Your task to perform on an android device: change the clock display to digital Image 0: 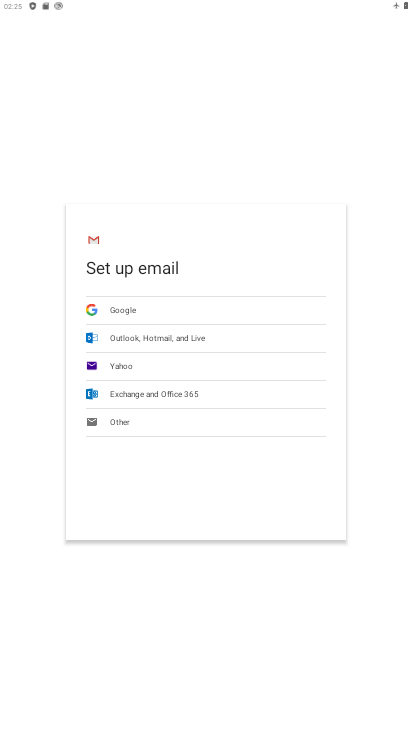
Step 0: press home button
Your task to perform on an android device: change the clock display to digital Image 1: 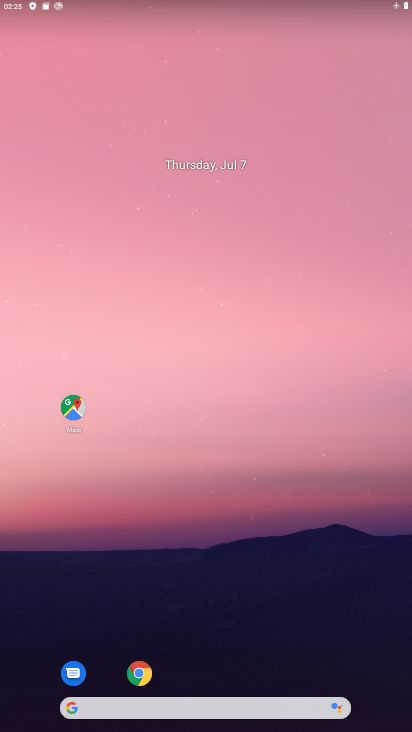
Step 1: drag from (222, 640) to (214, 200)
Your task to perform on an android device: change the clock display to digital Image 2: 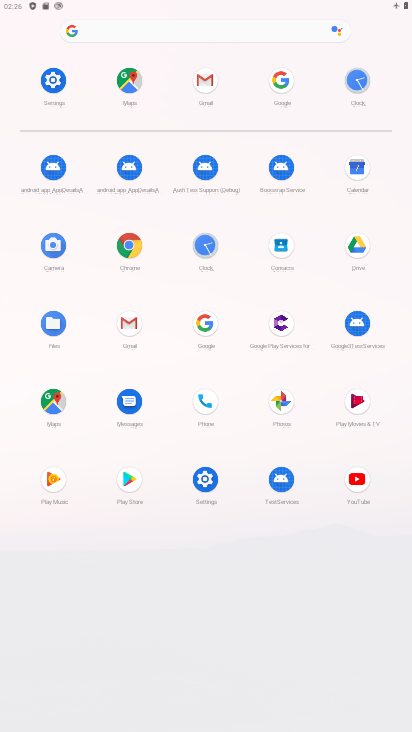
Step 2: click (355, 94)
Your task to perform on an android device: change the clock display to digital Image 3: 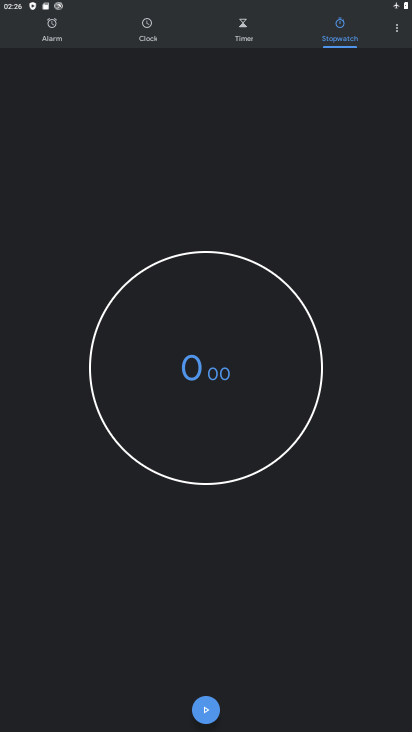
Step 3: click (391, 38)
Your task to perform on an android device: change the clock display to digital Image 4: 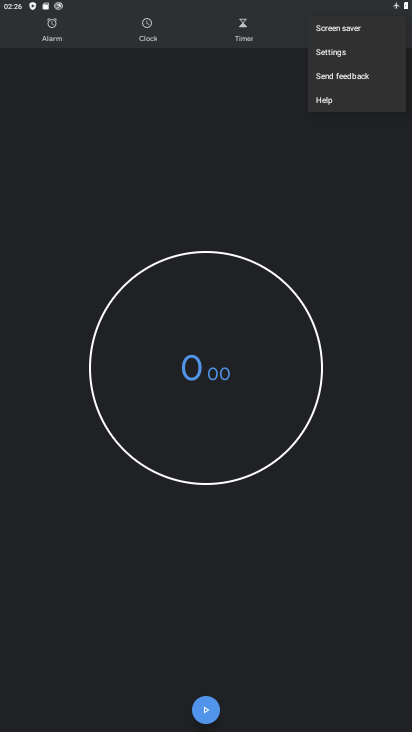
Step 4: click (344, 55)
Your task to perform on an android device: change the clock display to digital Image 5: 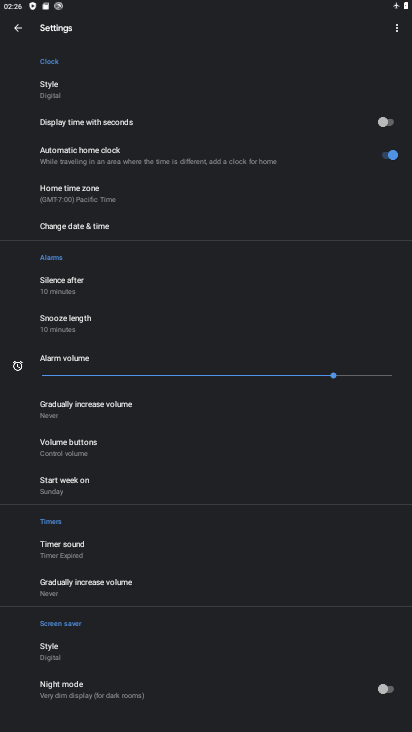
Step 5: click (50, 88)
Your task to perform on an android device: change the clock display to digital Image 6: 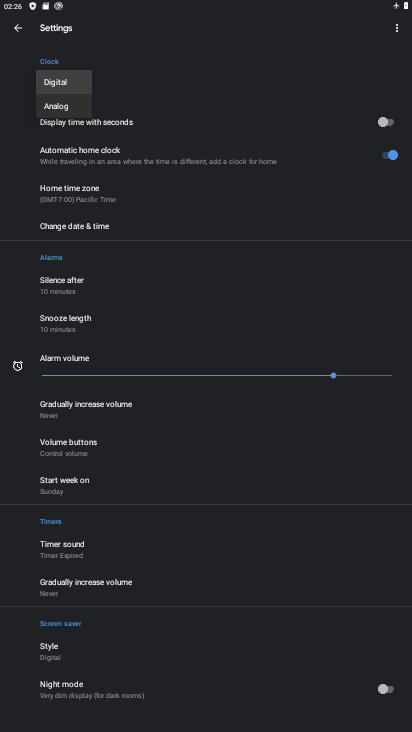
Step 6: click (74, 100)
Your task to perform on an android device: change the clock display to digital Image 7: 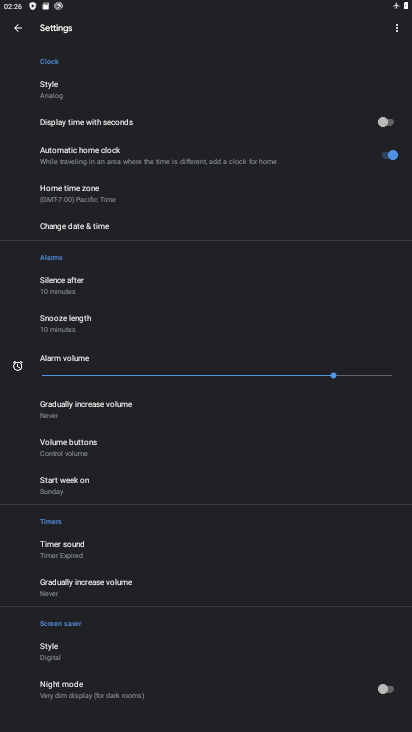
Step 7: click (56, 80)
Your task to perform on an android device: change the clock display to digital Image 8: 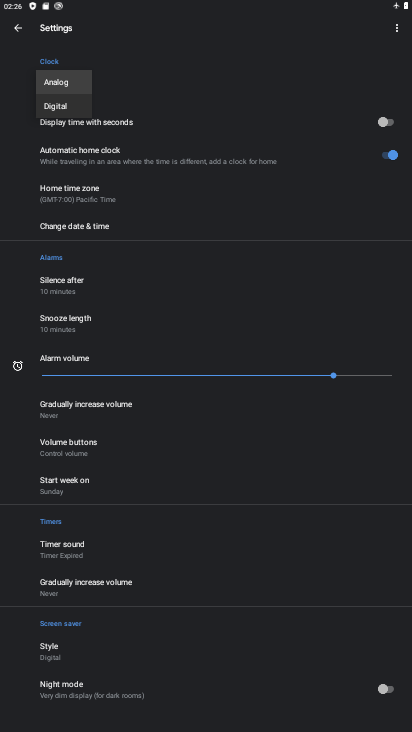
Step 8: click (66, 104)
Your task to perform on an android device: change the clock display to digital Image 9: 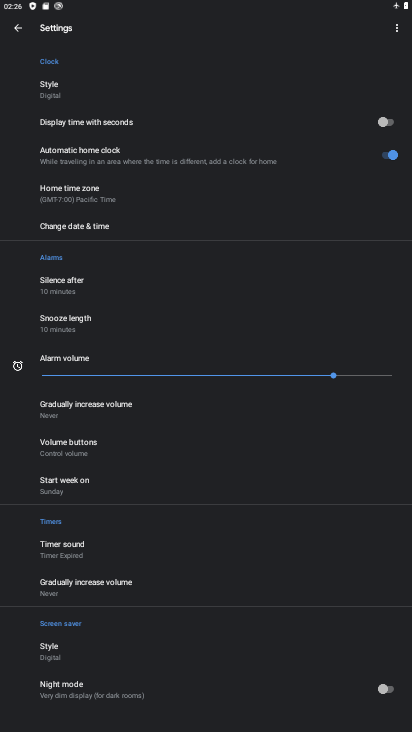
Step 9: task complete